Your task to perform on an android device: toggle improve location accuracy Image 0: 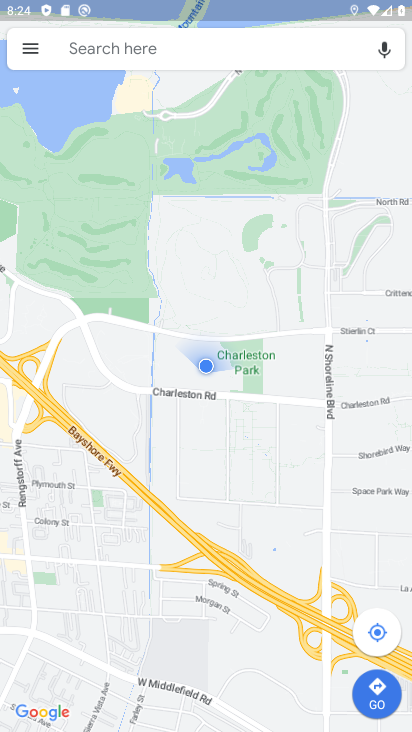
Step 0: press home button
Your task to perform on an android device: toggle improve location accuracy Image 1: 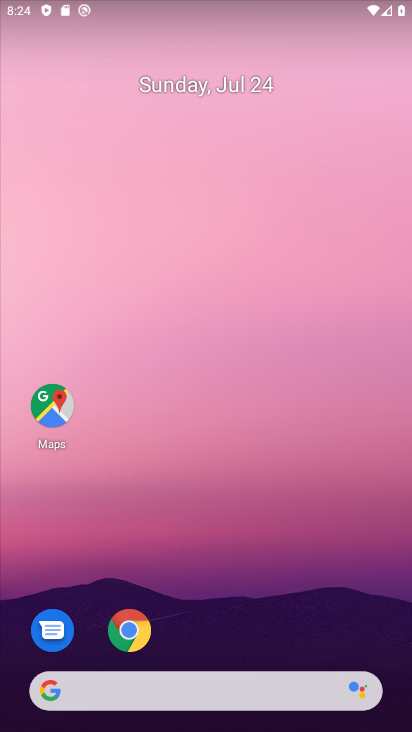
Step 1: drag from (263, 643) to (270, 88)
Your task to perform on an android device: toggle improve location accuracy Image 2: 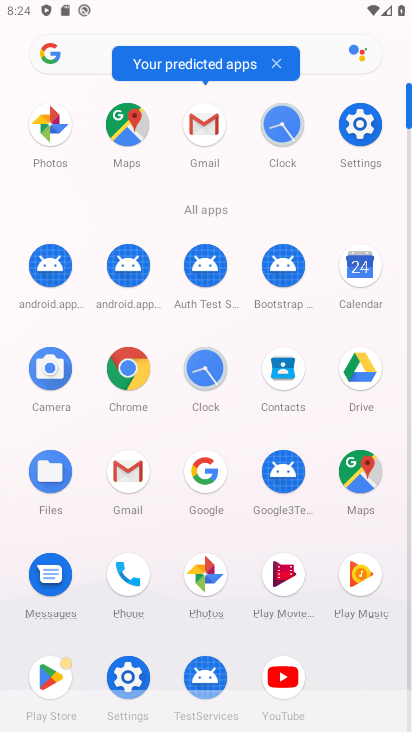
Step 2: click (362, 125)
Your task to perform on an android device: toggle improve location accuracy Image 3: 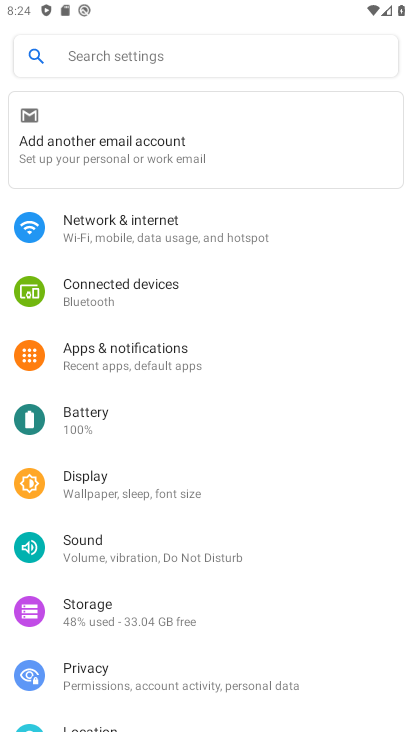
Step 3: drag from (204, 636) to (236, 230)
Your task to perform on an android device: toggle improve location accuracy Image 4: 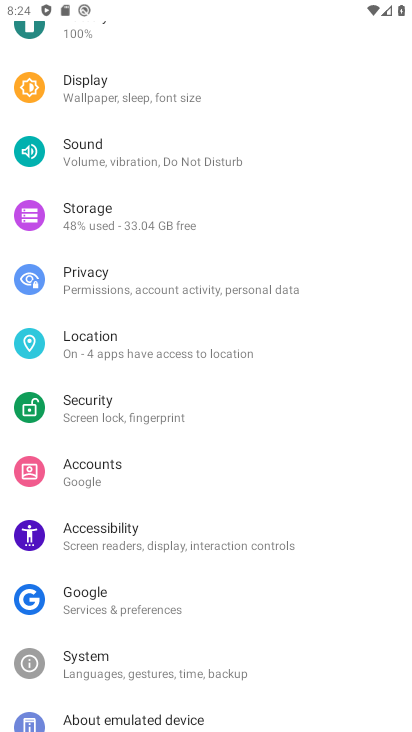
Step 4: click (207, 359)
Your task to perform on an android device: toggle improve location accuracy Image 5: 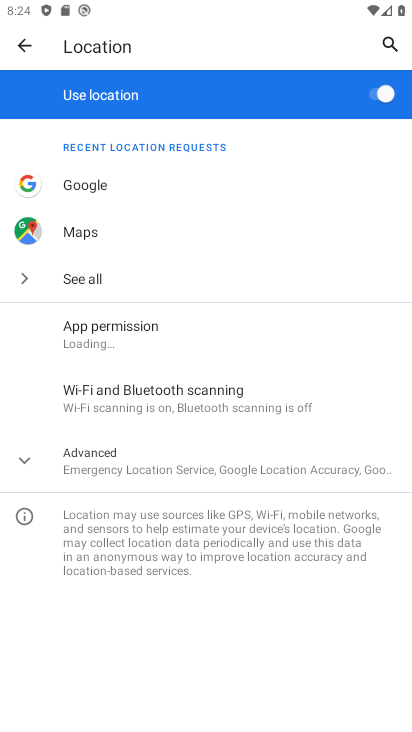
Step 5: click (218, 466)
Your task to perform on an android device: toggle improve location accuracy Image 6: 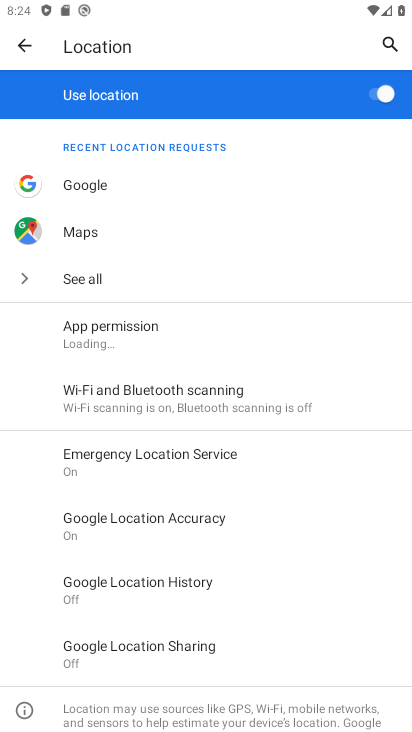
Step 6: click (214, 526)
Your task to perform on an android device: toggle improve location accuracy Image 7: 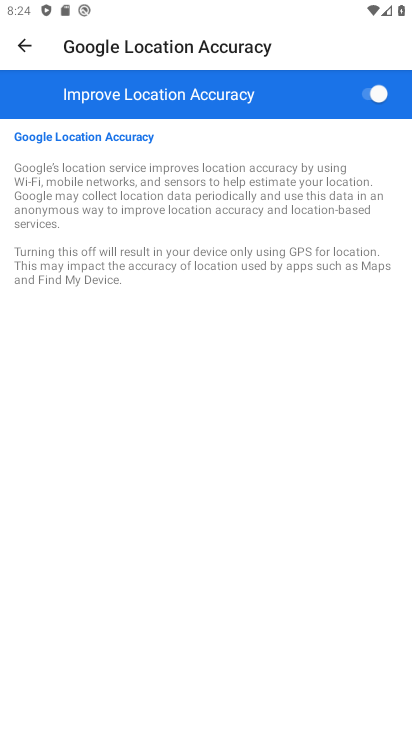
Step 7: click (370, 116)
Your task to perform on an android device: toggle improve location accuracy Image 8: 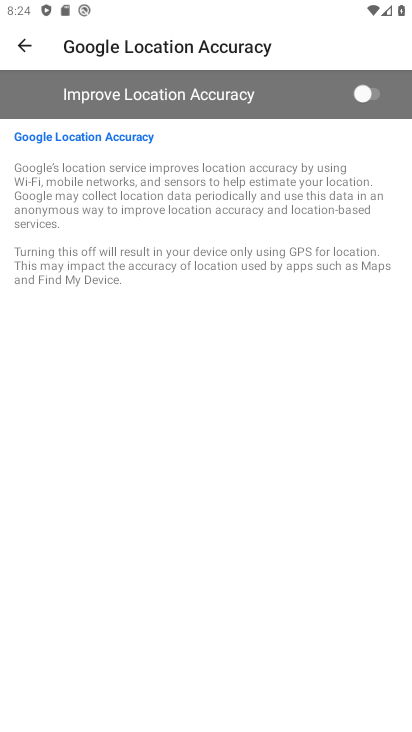
Step 8: task complete